Your task to perform on an android device: turn on the 12-hour format for clock Image 0: 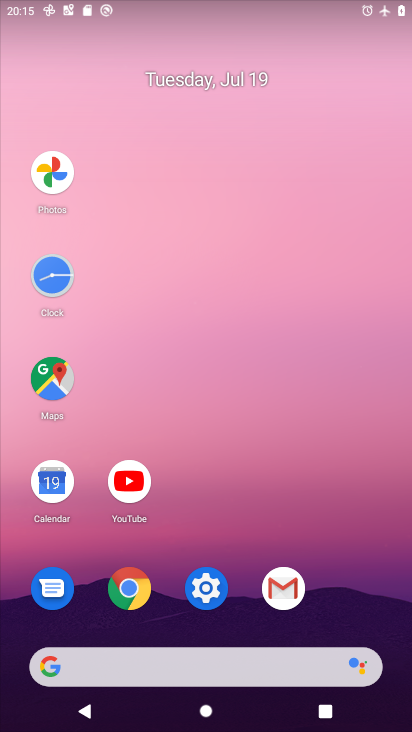
Step 0: click (43, 274)
Your task to perform on an android device: turn on the 12-hour format for clock Image 1: 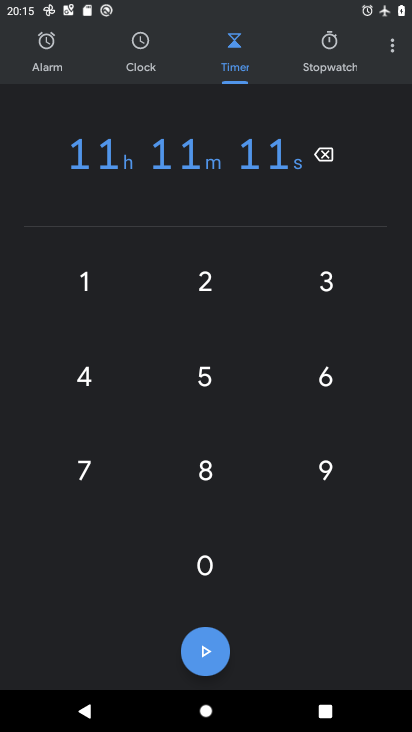
Step 1: click (396, 44)
Your task to perform on an android device: turn on the 12-hour format for clock Image 2: 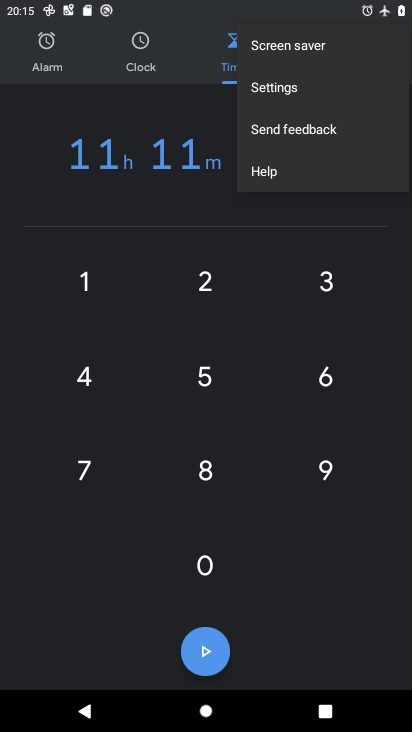
Step 2: click (280, 91)
Your task to perform on an android device: turn on the 12-hour format for clock Image 3: 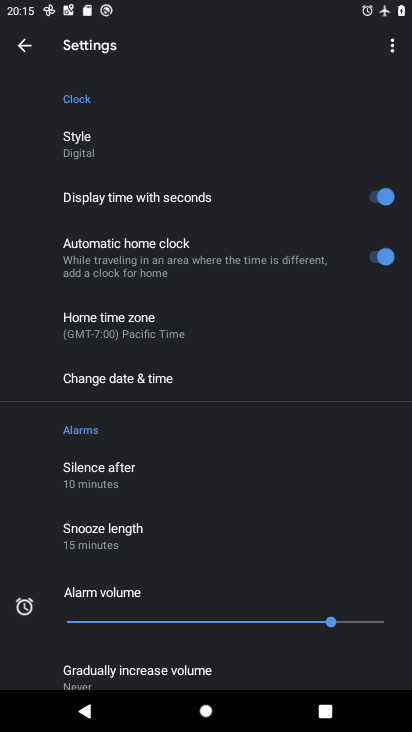
Step 3: click (129, 382)
Your task to perform on an android device: turn on the 12-hour format for clock Image 4: 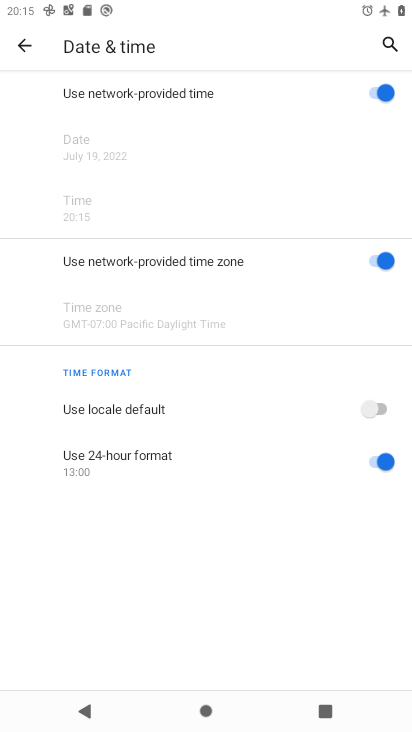
Step 4: click (374, 410)
Your task to perform on an android device: turn on the 12-hour format for clock Image 5: 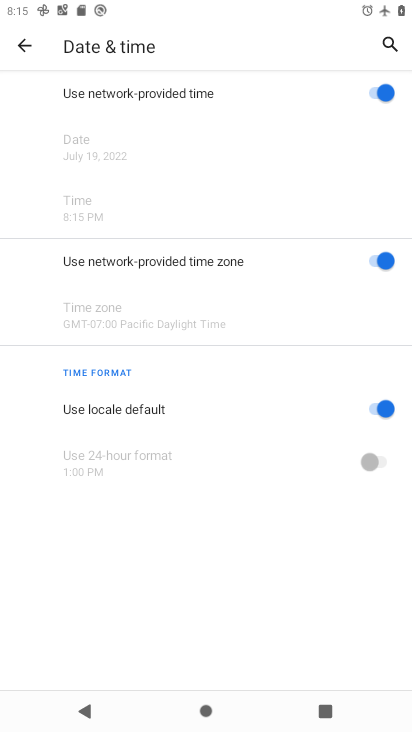
Step 5: task complete